Your task to perform on an android device: See recent photos Image 0: 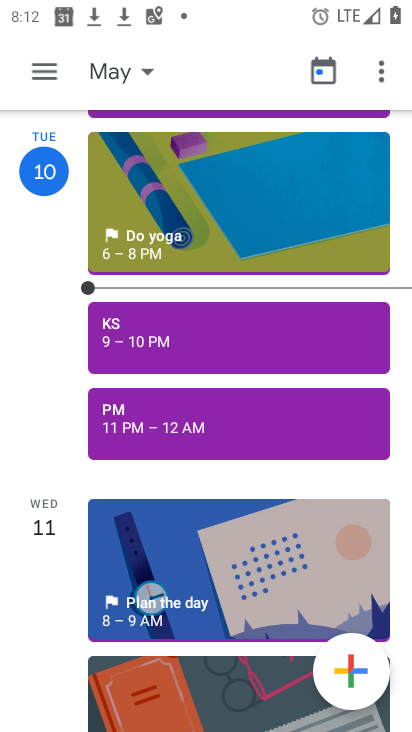
Step 0: press home button
Your task to perform on an android device: See recent photos Image 1: 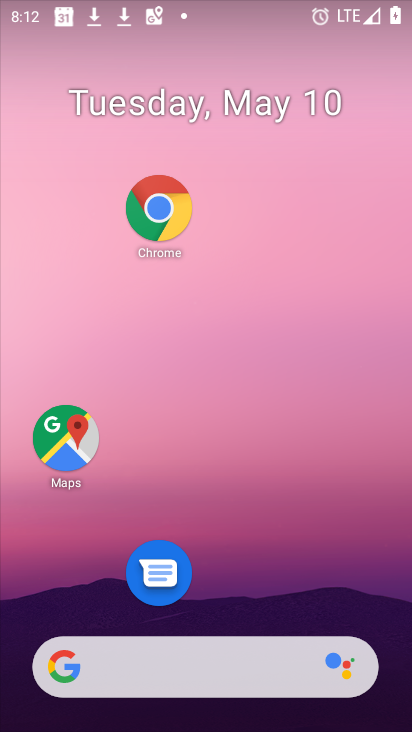
Step 1: drag from (303, 705) to (317, 130)
Your task to perform on an android device: See recent photos Image 2: 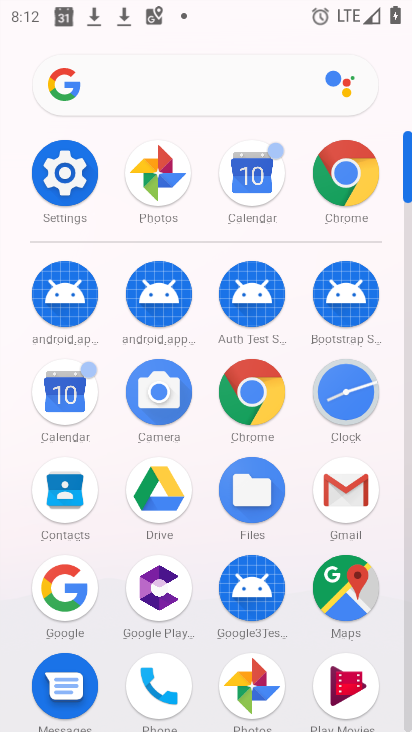
Step 2: click (260, 679)
Your task to perform on an android device: See recent photos Image 3: 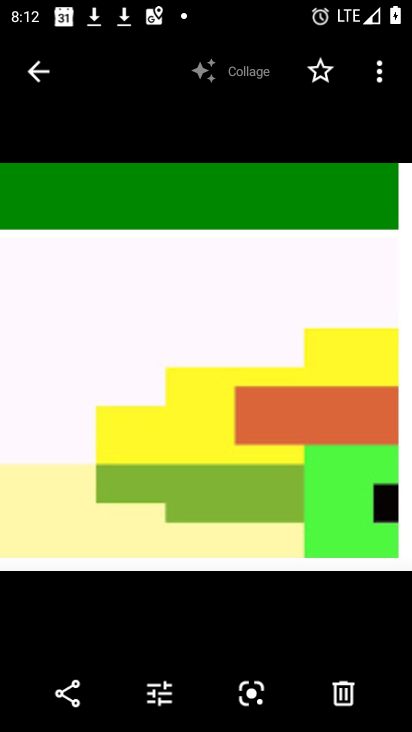
Step 3: click (47, 76)
Your task to perform on an android device: See recent photos Image 4: 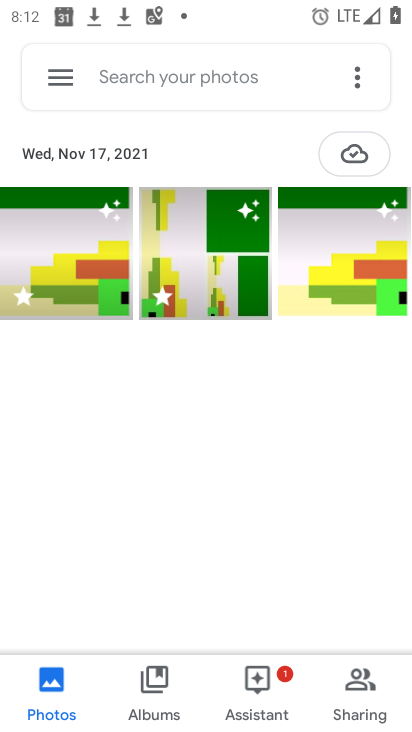
Step 4: task complete